Your task to perform on an android device: turn off notifications in google photos Image 0: 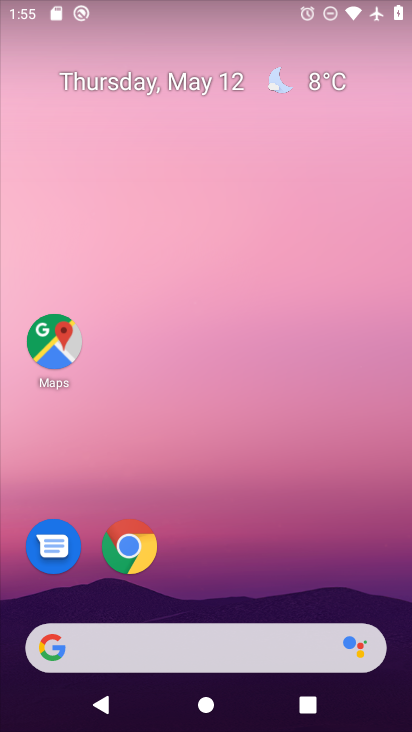
Step 0: drag from (244, 644) to (308, 251)
Your task to perform on an android device: turn off notifications in google photos Image 1: 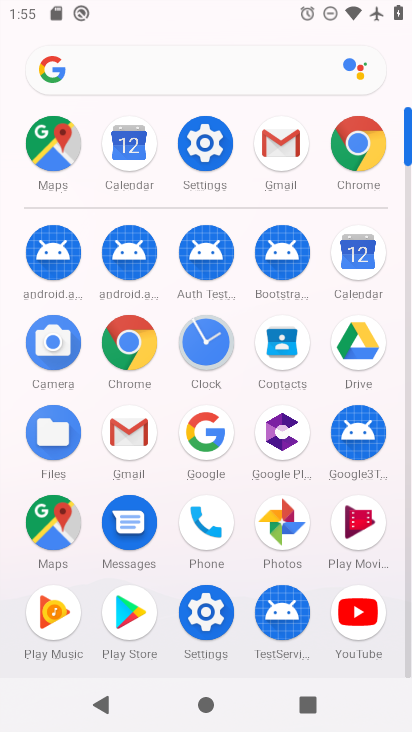
Step 1: click (290, 521)
Your task to perform on an android device: turn off notifications in google photos Image 2: 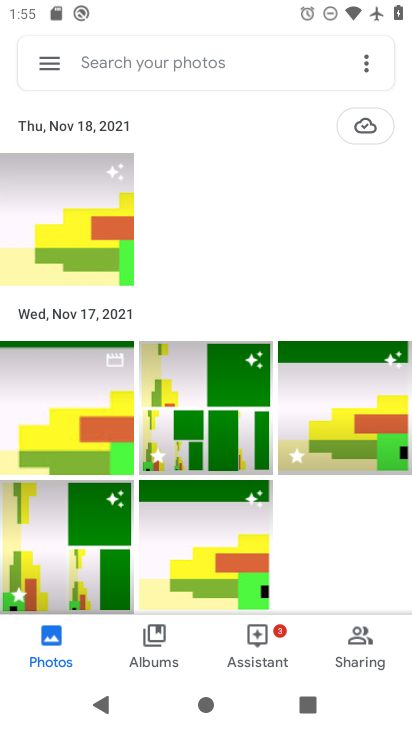
Step 2: click (54, 61)
Your task to perform on an android device: turn off notifications in google photos Image 3: 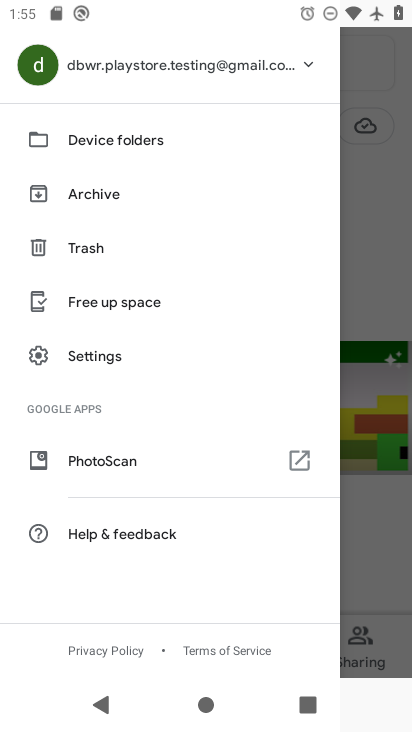
Step 3: click (103, 354)
Your task to perform on an android device: turn off notifications in google photos Image 4: 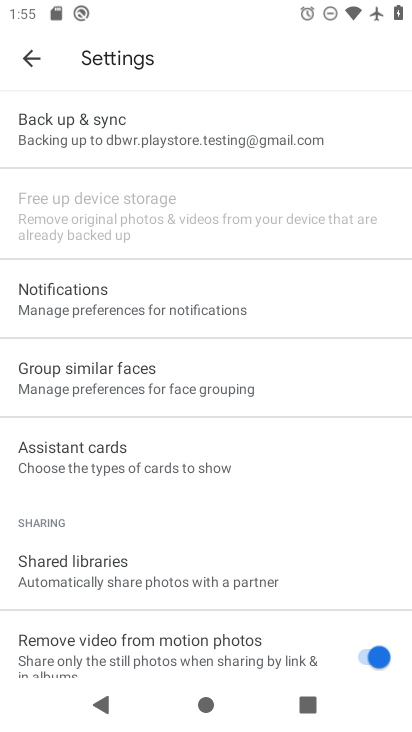
Step 4: click (166, 307)
Your task to perform on an android device: turn off notifications in google photos Image 5: 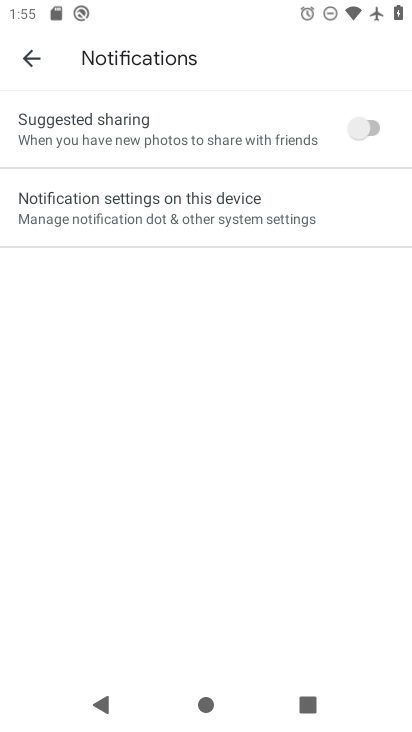
Step 5: click (291, 216)
Your task to perform on an android device: turn off notifications in google photos Image 6: 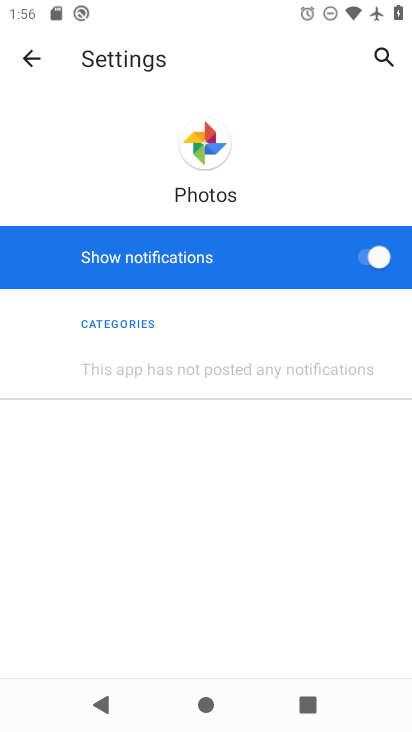
Step 6: click (367, 254)
Your task to perform on an android device: turn off notifications in google photos Image 7: 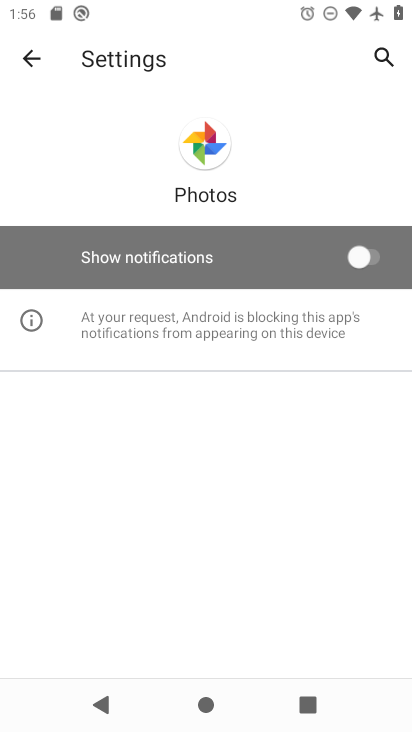
Step 7: task complete